Your task to perform on an android device: turn off sleep mode Image 0: 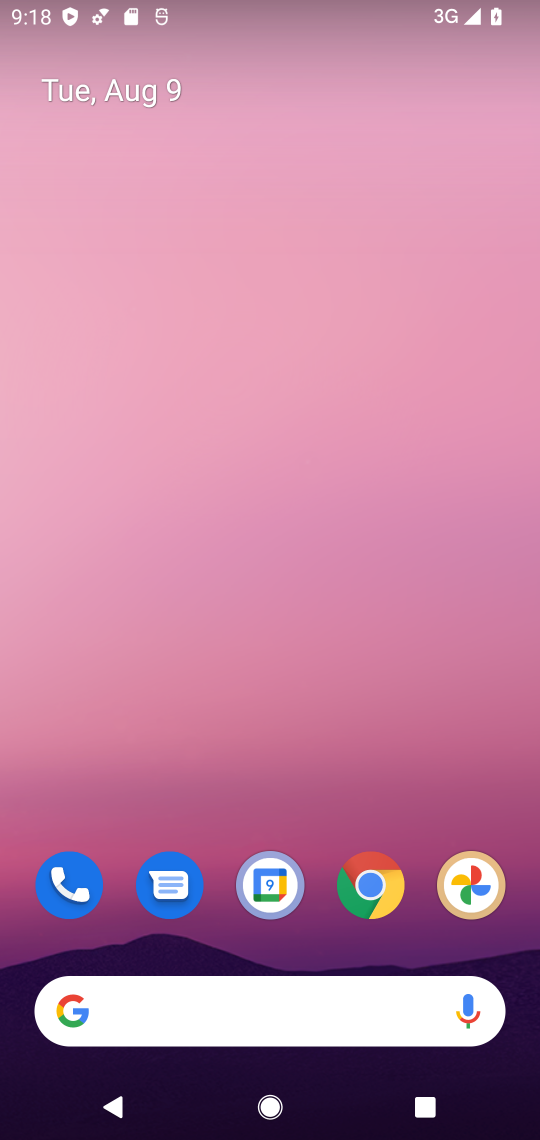
Step 0: press home button
Your task to perform on an android device: turn off sleep mode Image 1: 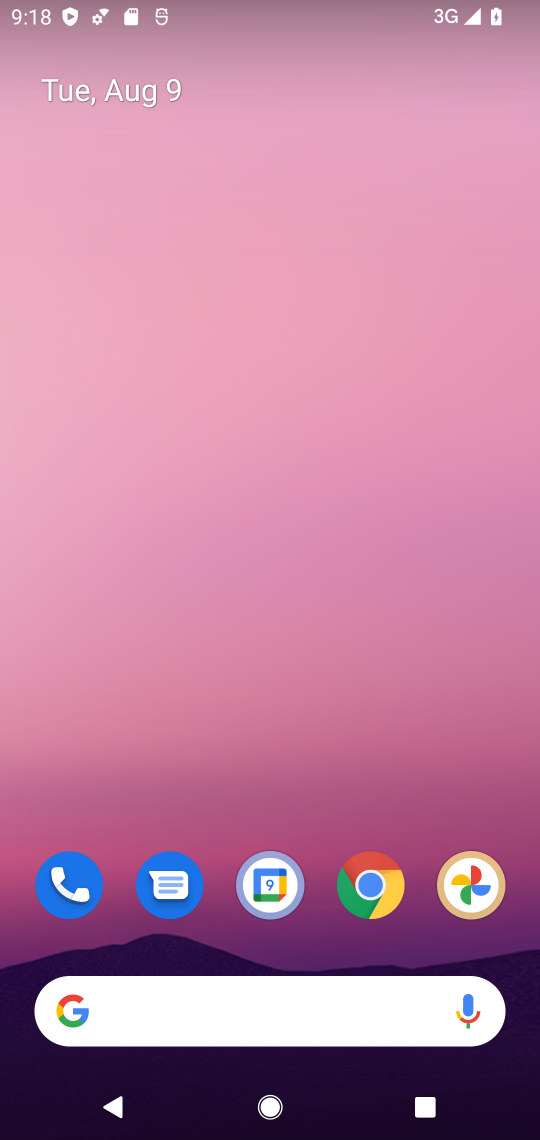
Step 1: drag from (319, 843) to (316, 22)
Your task to perform on an android device: turn off sleep mode Image 2: 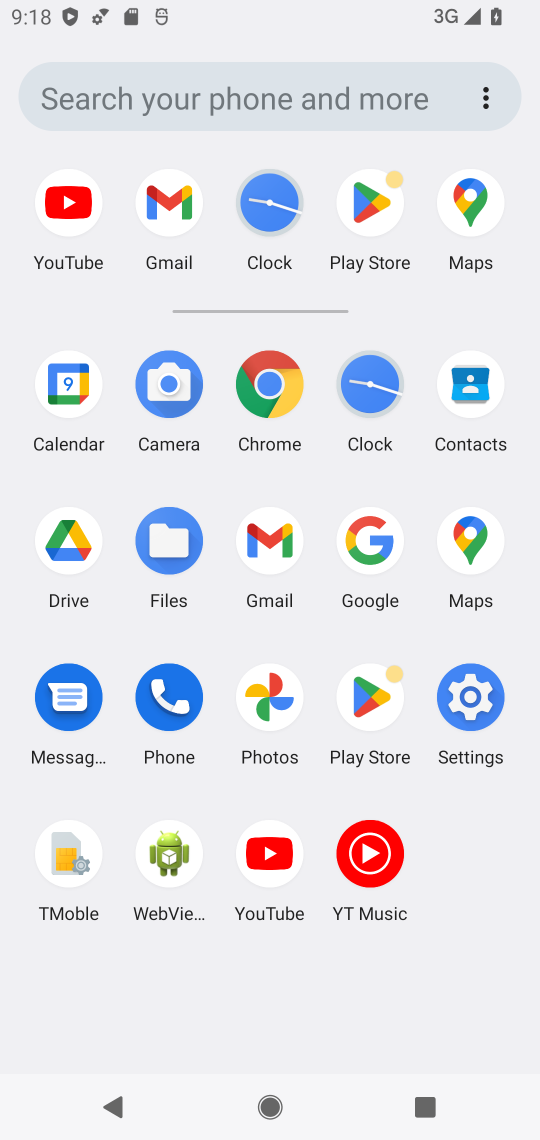
Step 2: click (467, 689)
Your task to perform on an android device: turn off sleep mode Image 3: 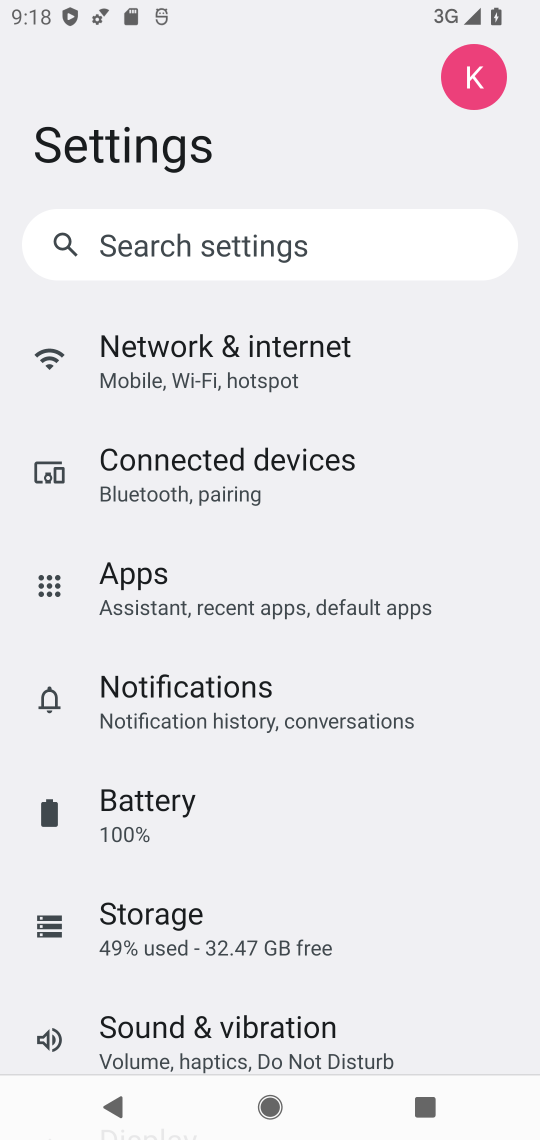
Step 3: drag from (229, 882) to (257, 423)
Your task to perform on an android device: turn off sleep mode Image 4: 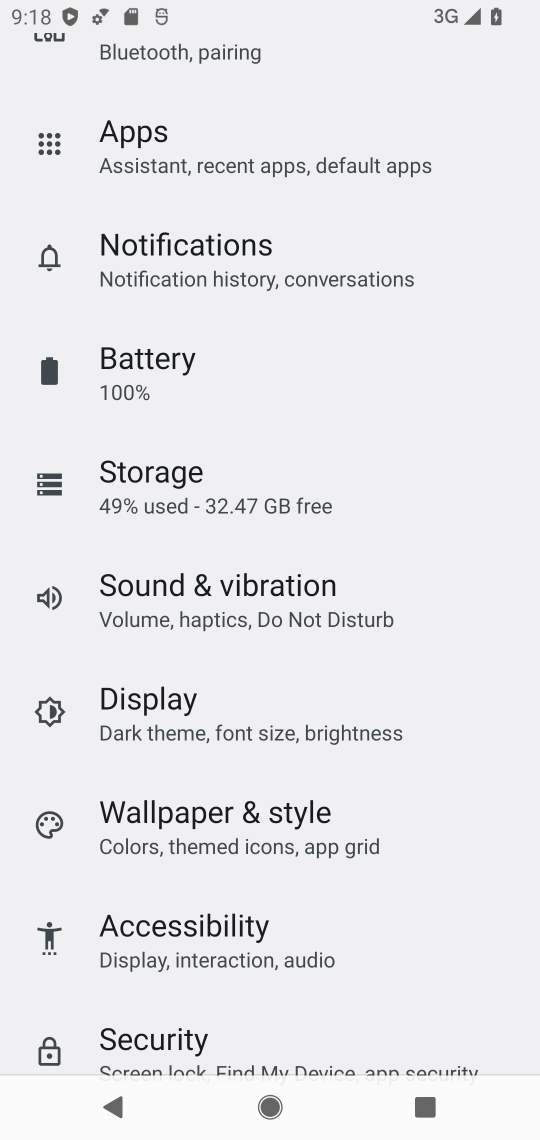
Step 4: click (219, 704)
Your task to perform on an android device: turn off sleep mode Image 5: 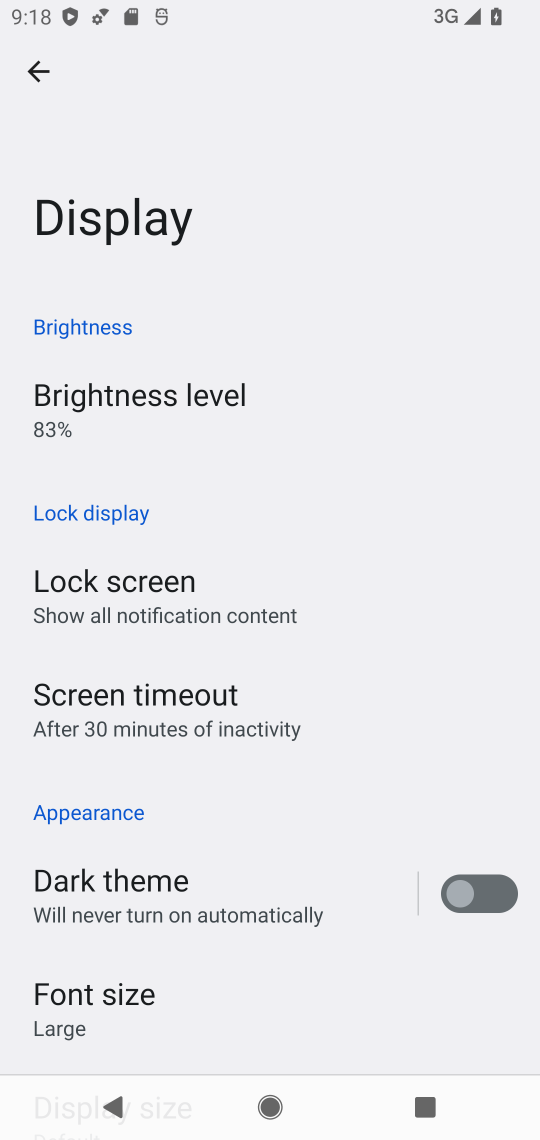
Step 5: task complete